Your task to perform on an android device: install app "Google Find My Device" Image 0: 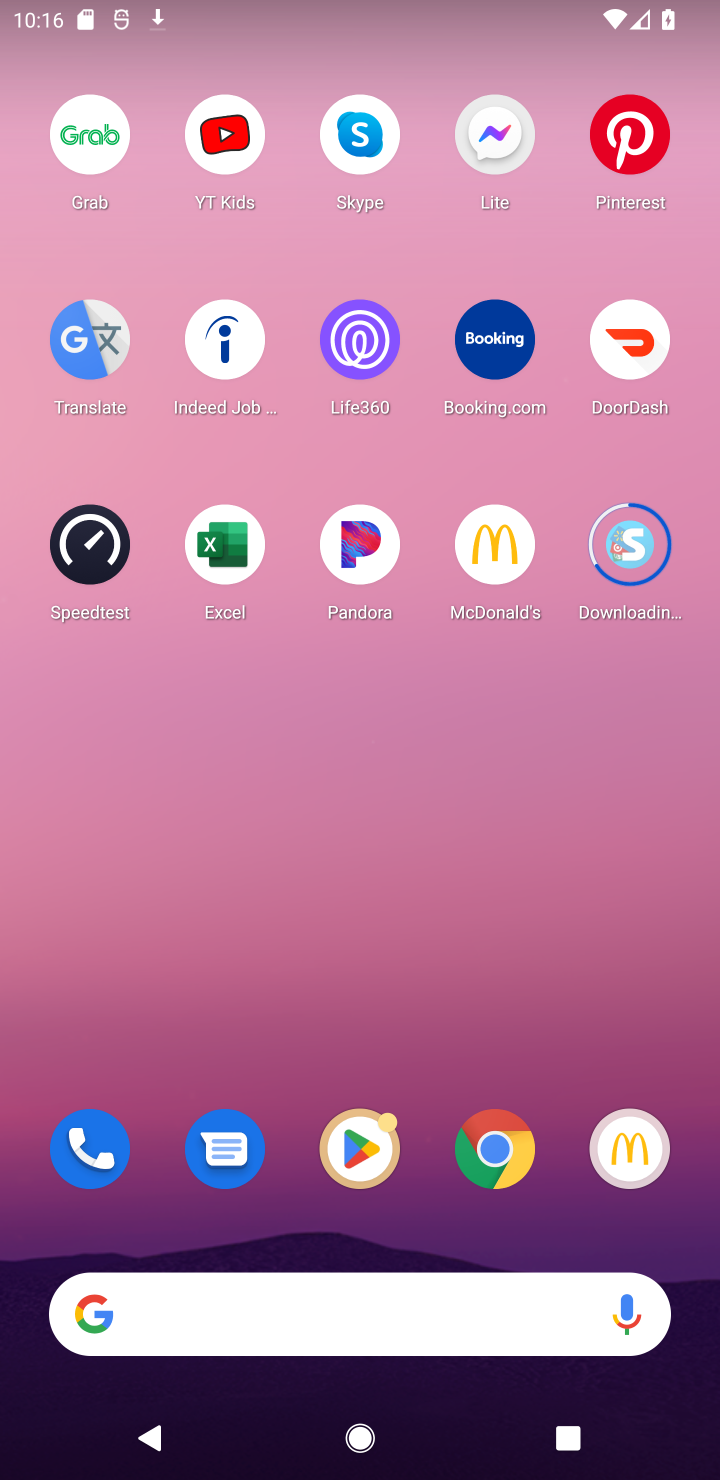
Step 0: click (348, 1157)
Your task to perform on an android device: install app "Google Find My Device" Image 1: 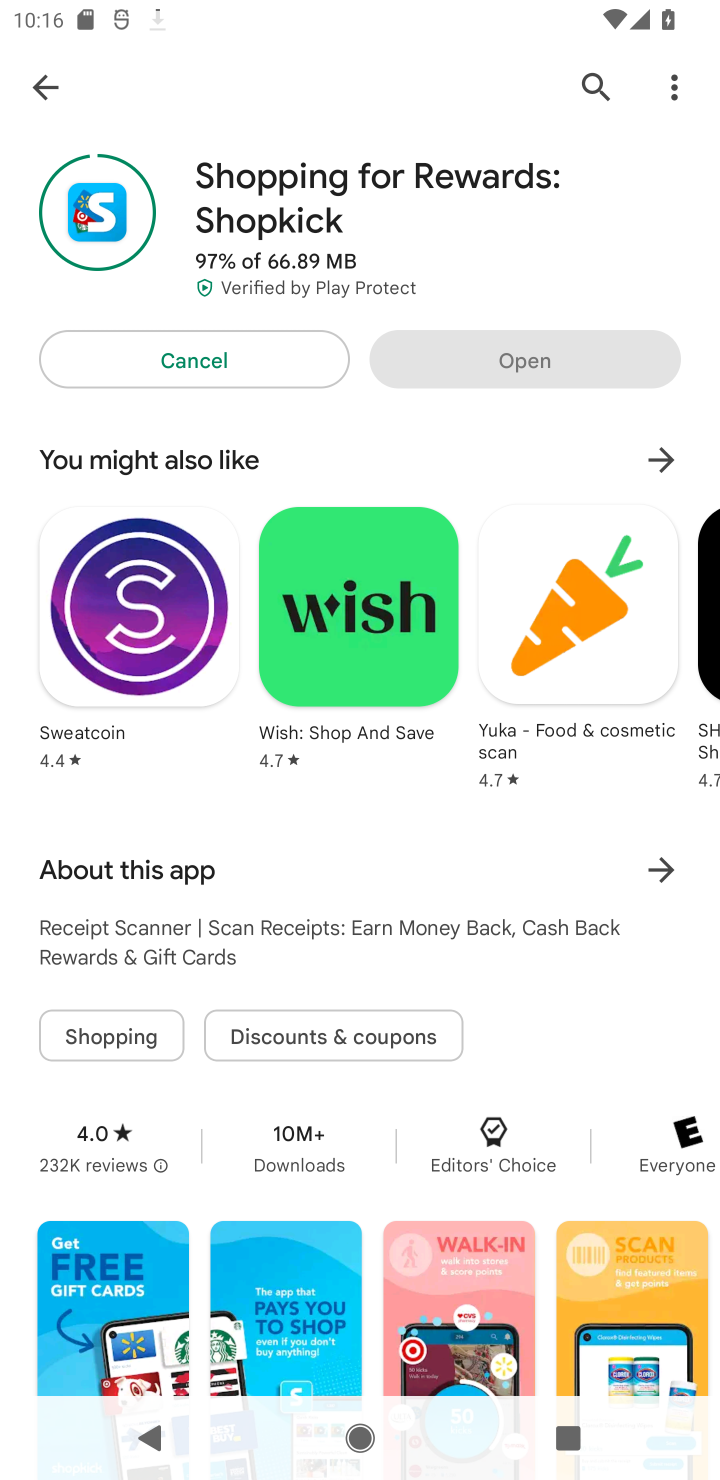
Step 1: click (616, 77)
Your task to perform on an android device: install app "Google Find My Device" Image 2: 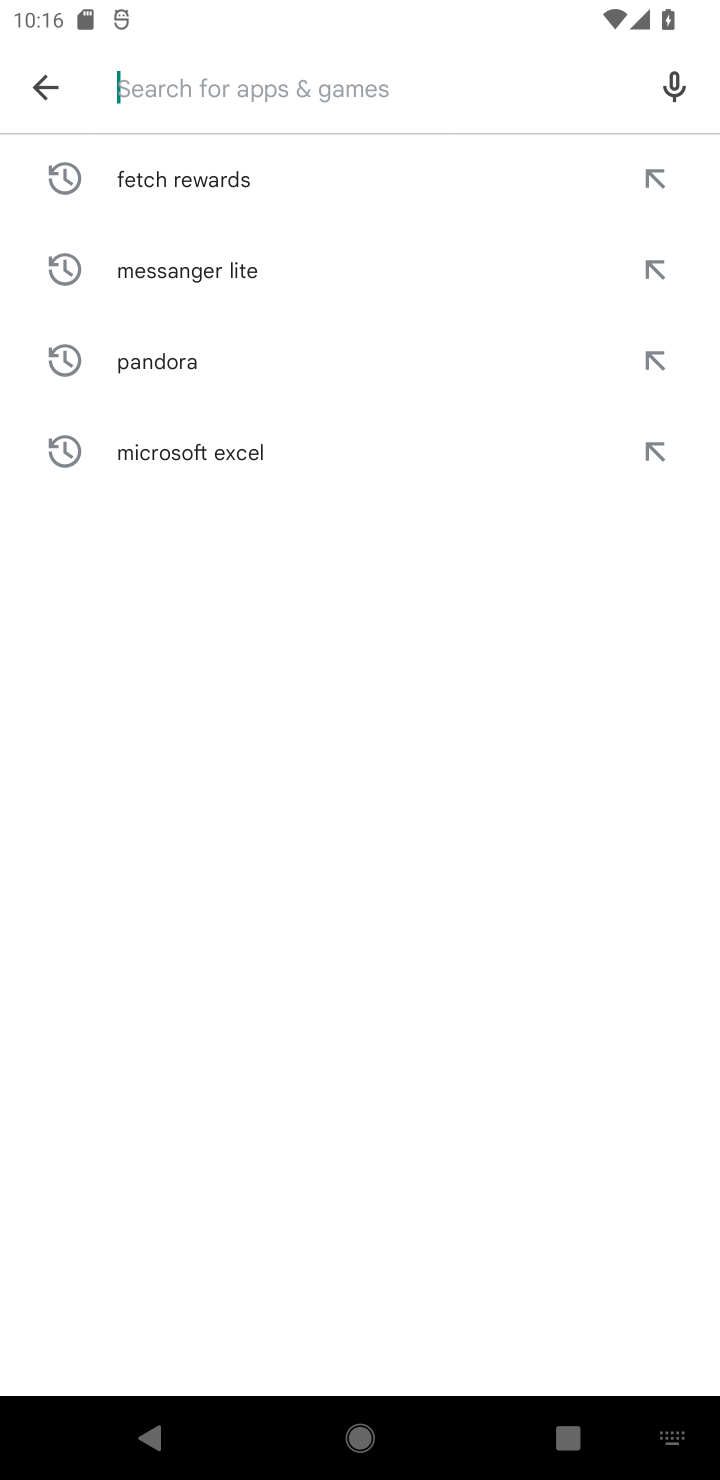
Step 2: click (682, 77)
Your task to perform on an android device: install app "Google Find My Device" Image 3: 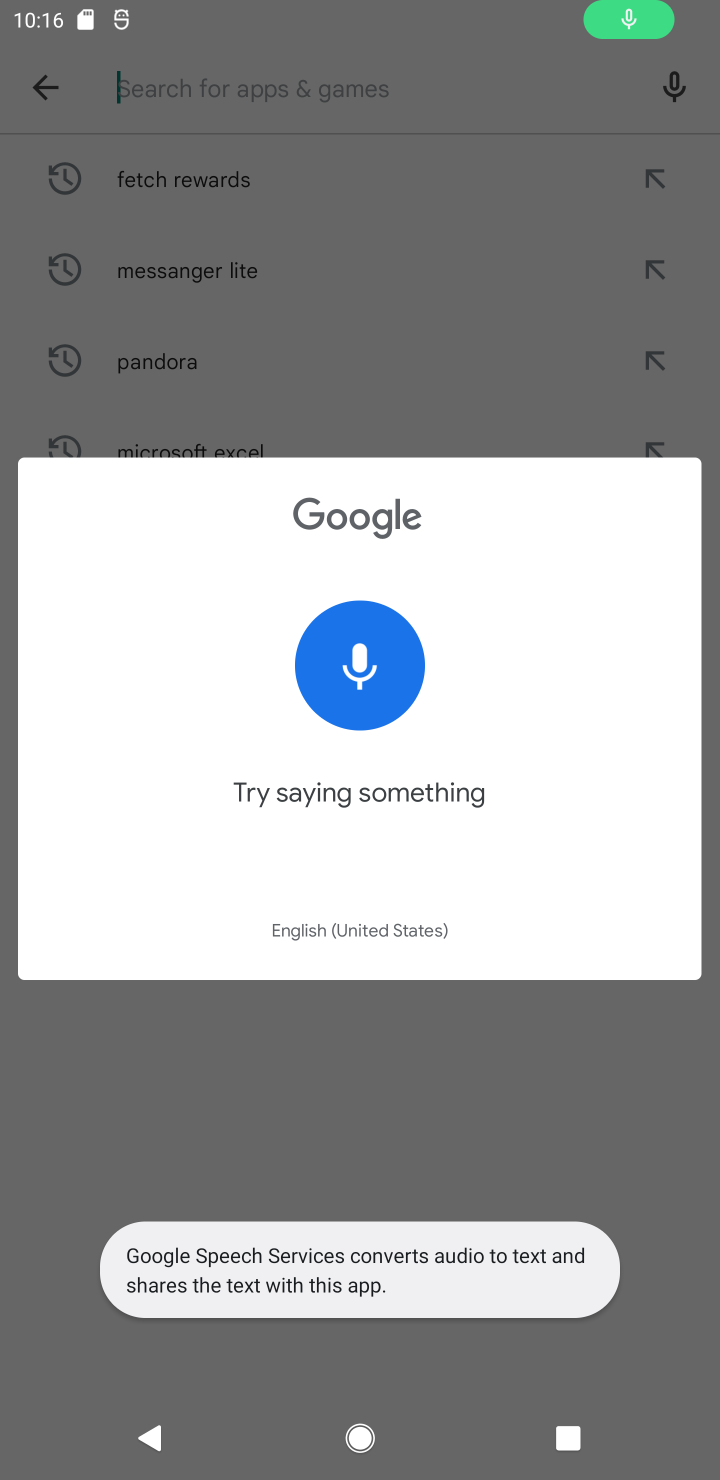
Step 3: click (437, 224)
Your task to perform on an android device: install app "Google Find My Device" Image 4: 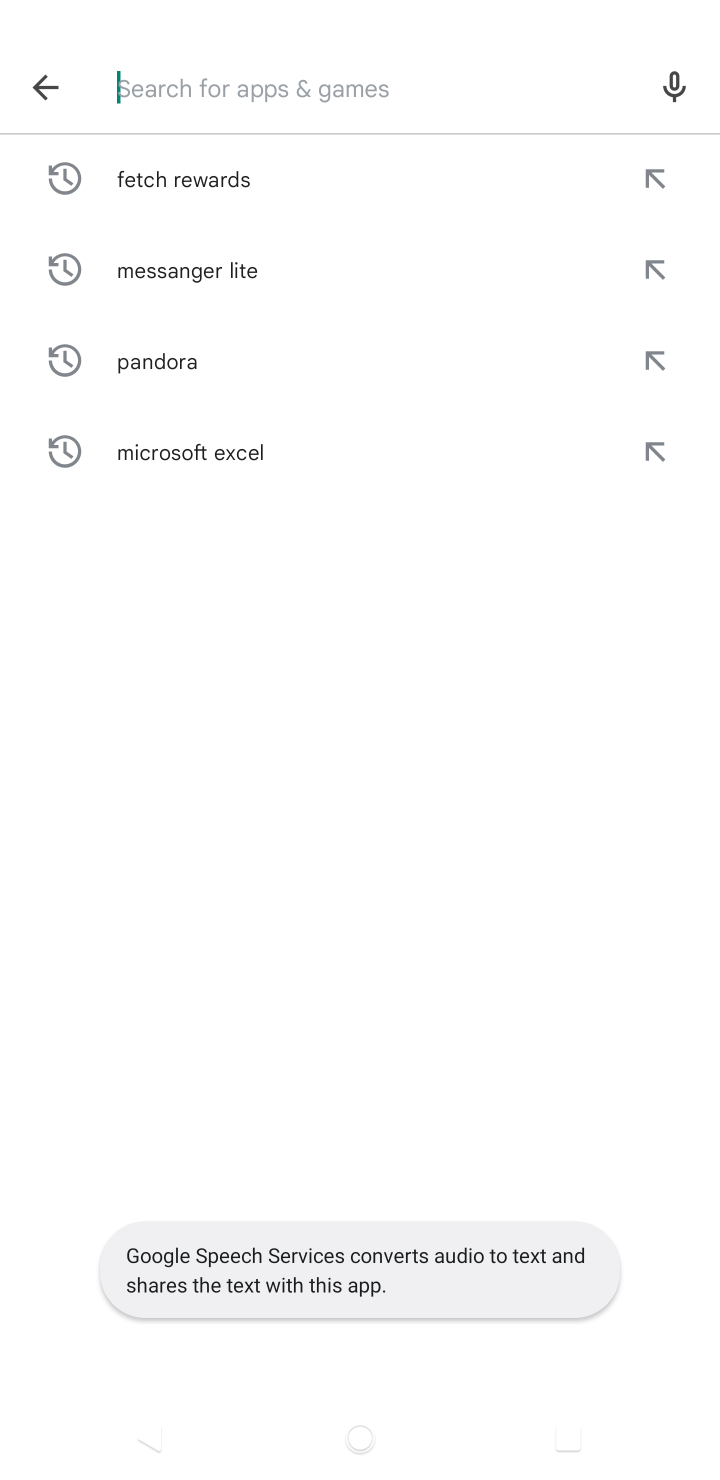
Step 4: click (361, 102)
Your task to perform on an android device: install app "Google Find My Device" Image 5: 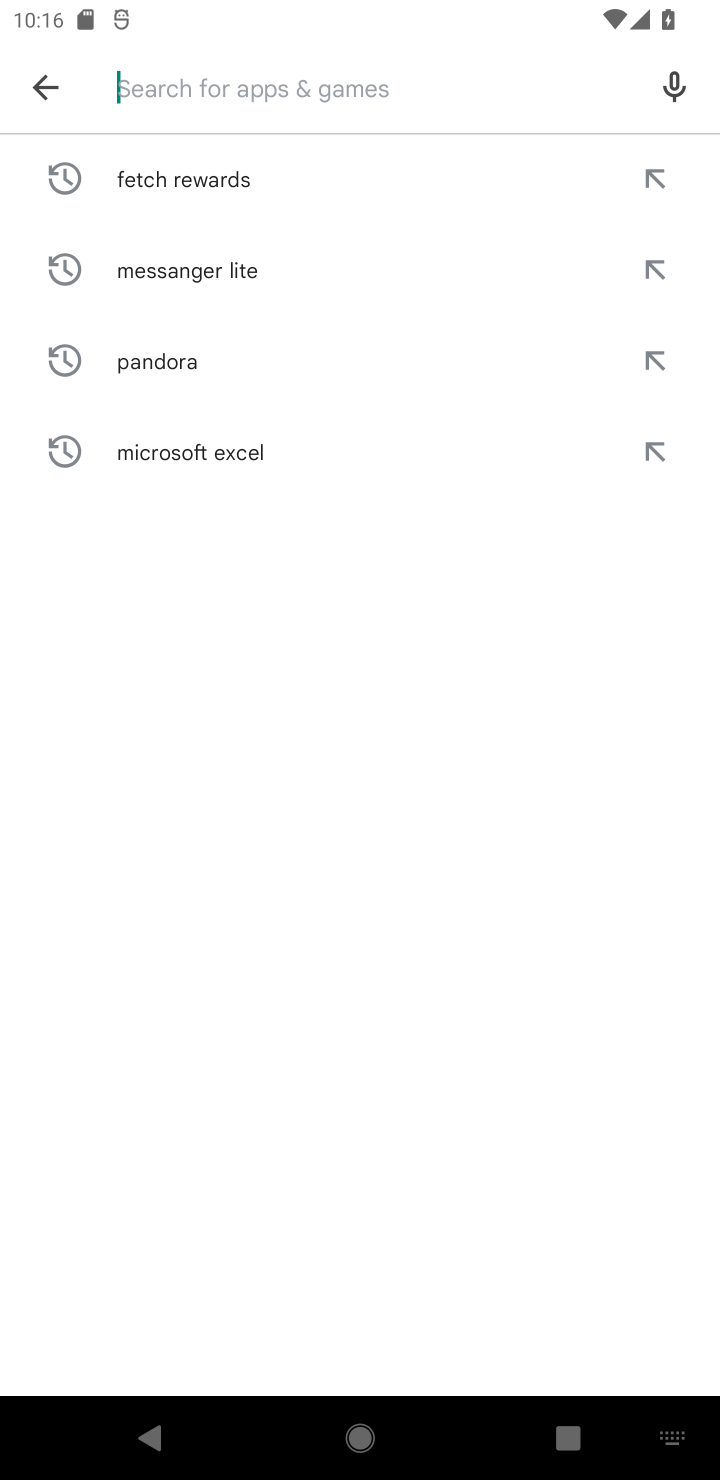
Step 5: type "find my devices"
Your task to perform on an android device: install app "Google Find My Device" Image 6: 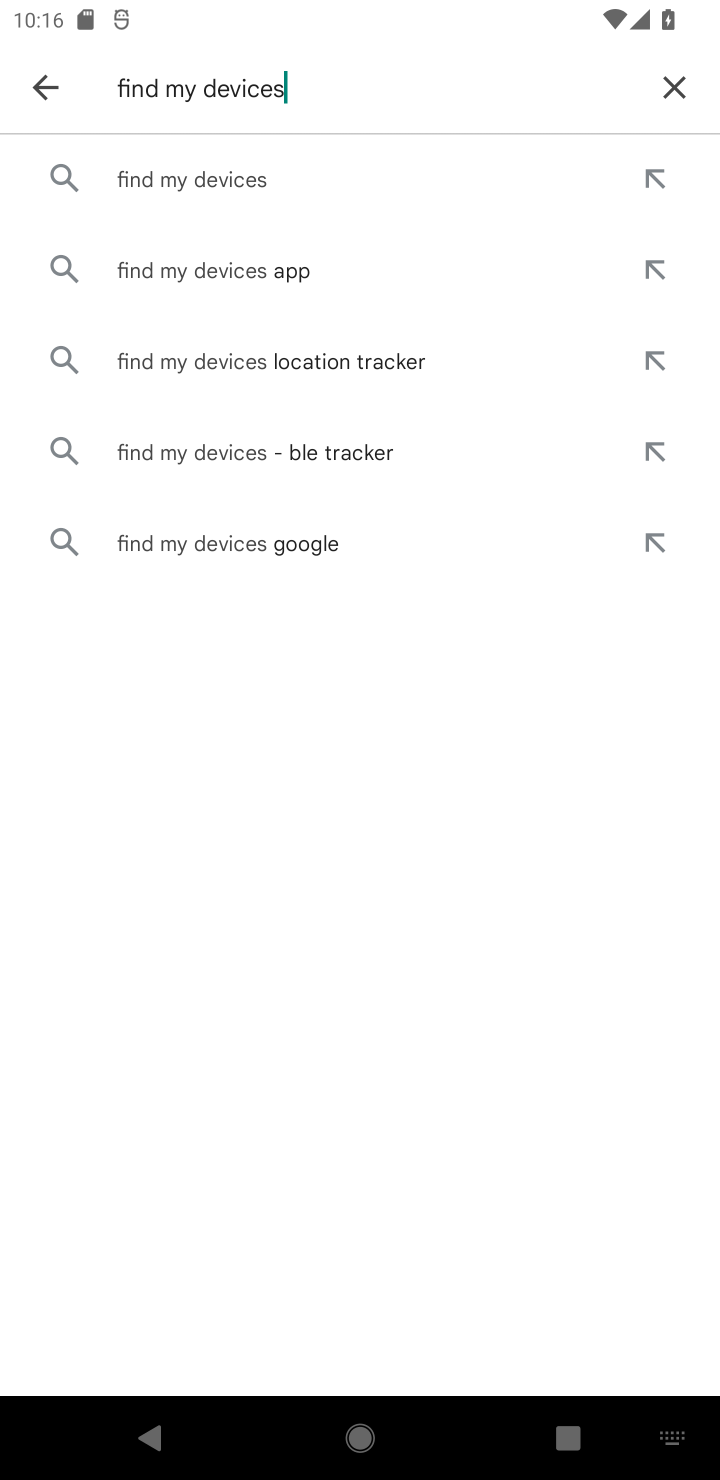
Step 6: click (219, 211)
Your task to perform on an android device: install app "Google Find My Device" Image 7: 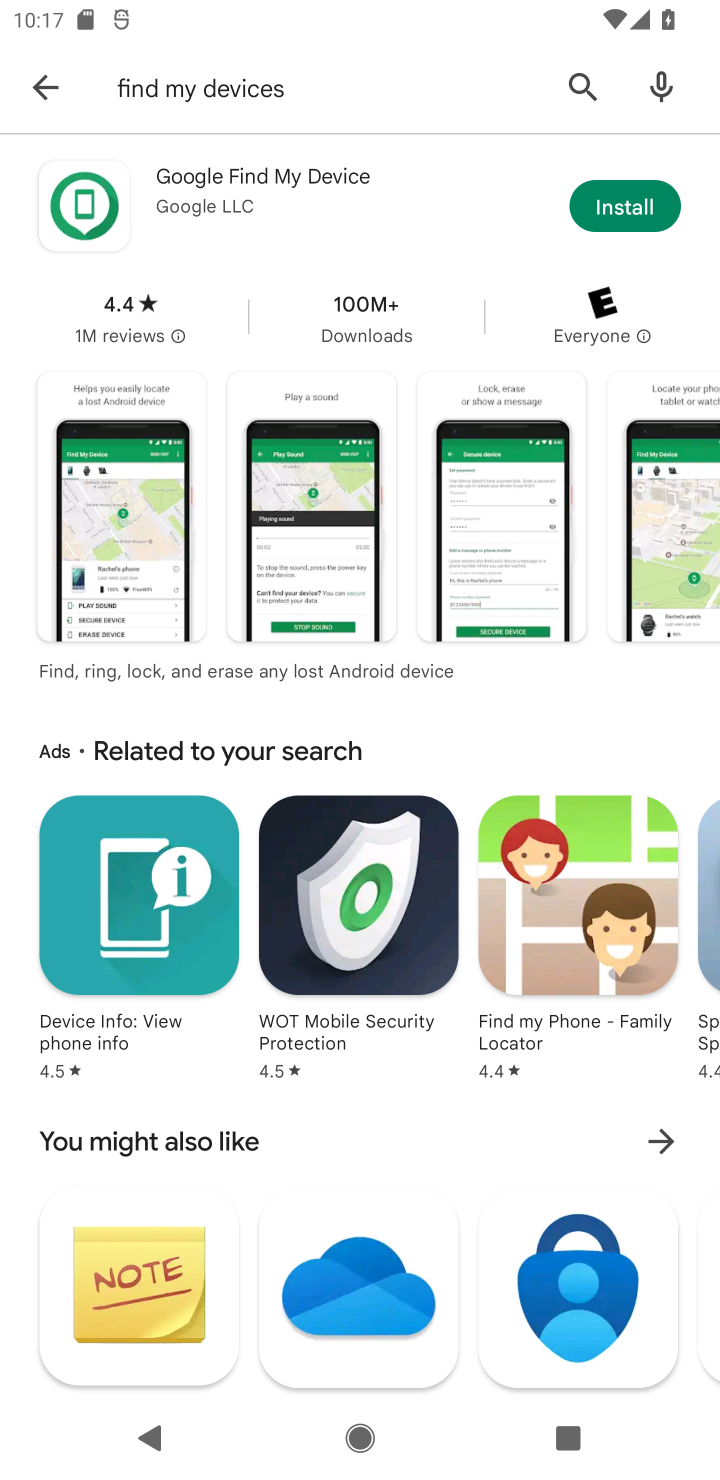
Step 7: click (626, 200)
Your task to perform on an android device: install app "Google Find My Device" Image 8: 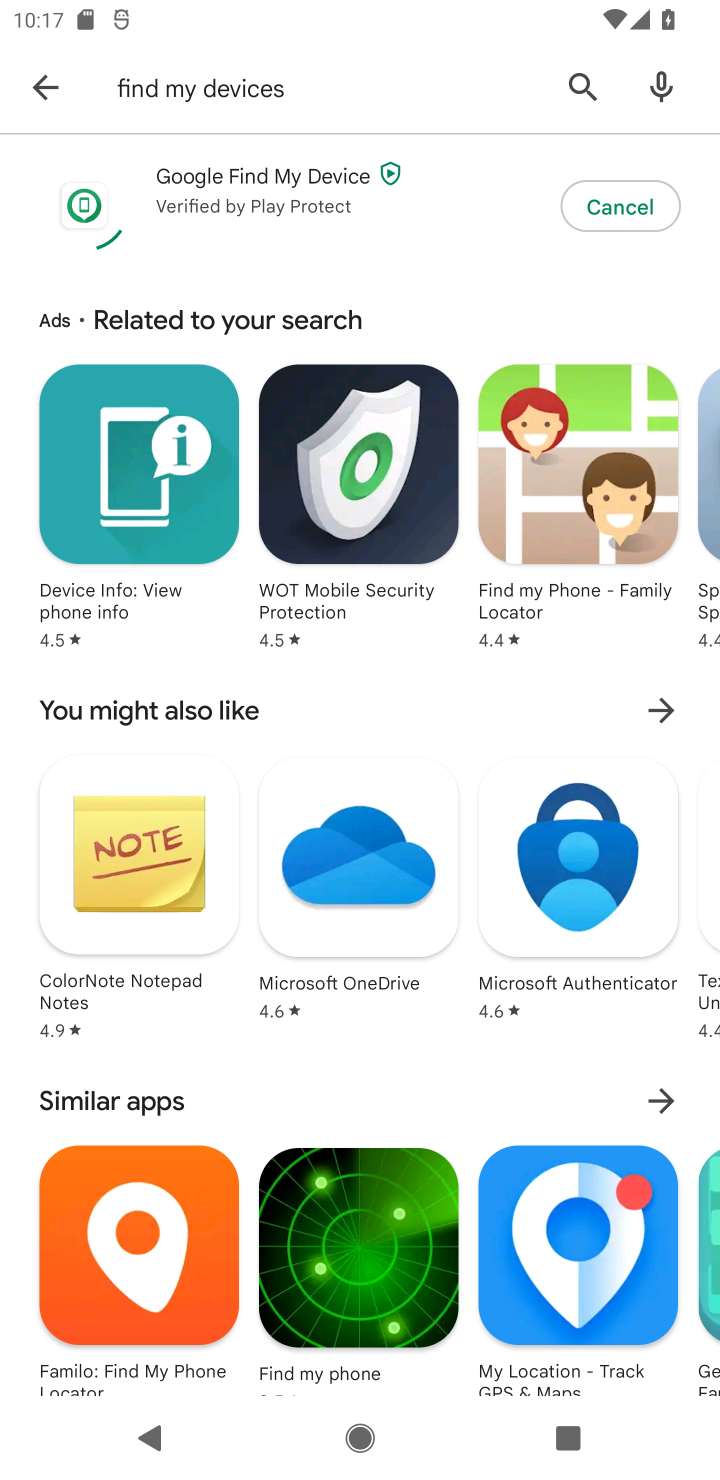
Step 8: task complete